Your task to perform on an android device: Open Chrome and go to settings Image 0: 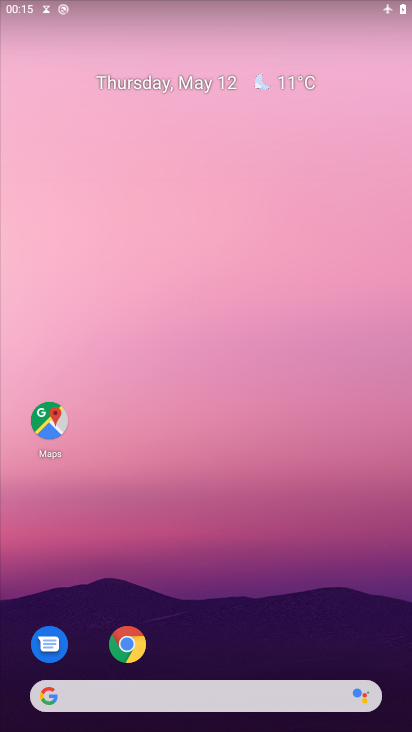
Step 0: click (123, 641)
Your task to perform on an android device: Open Chrome and go to settings Image 1: 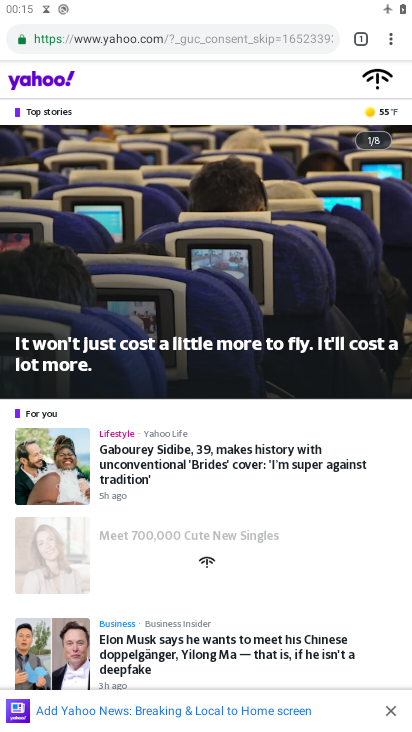
Step 1: click (390, 41)
Your task to perform on an android device: Open Chrome and go to settings Image 2: 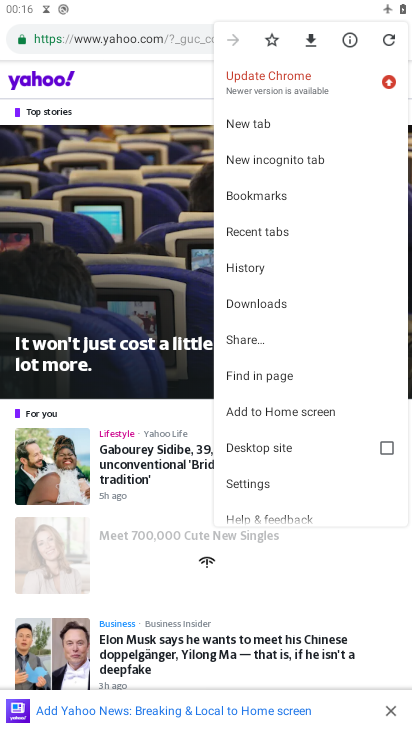
Step 2: click (279, 480)
Your task to perform on an android device: Open Chrome and go to settings Image 3: 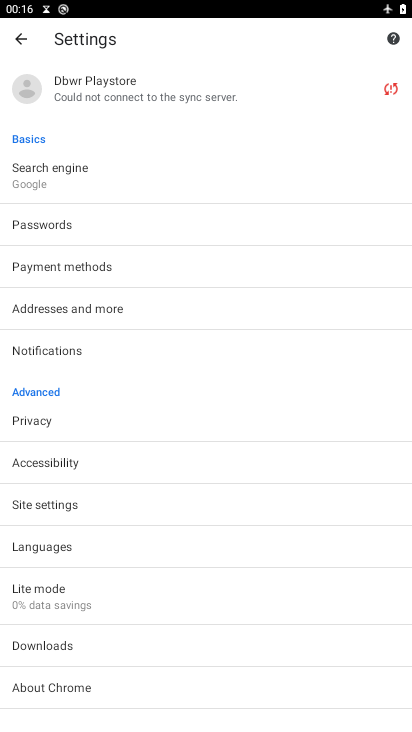
Step 3: task complete